Your task to perform on an android device: turn vacation reply on in the gmail app Image 0: 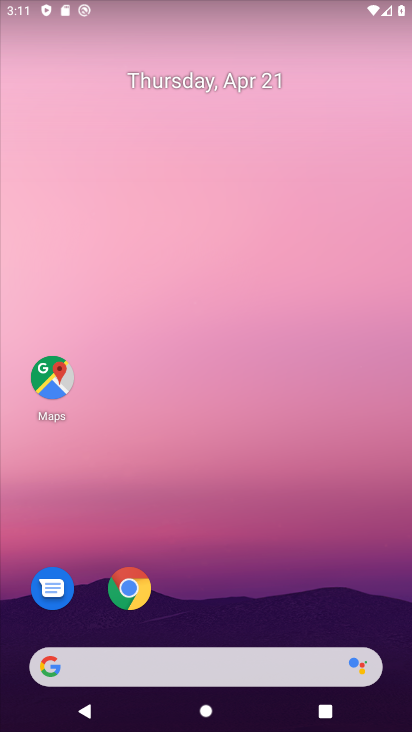
Step 0: drag from (156, 2) to (9, 220)
Your task to perform on an android device: turn vacation reply on in the gmail app Image 1: 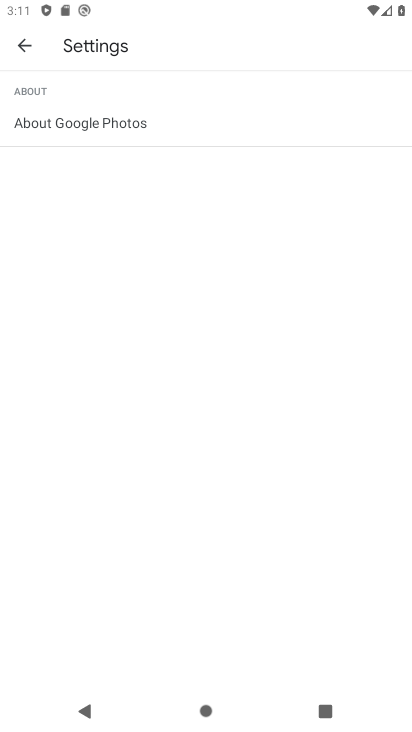
Step 1: press home button
Your task to perform on an android device: turn vacation reply on in the gmail app Image 2: 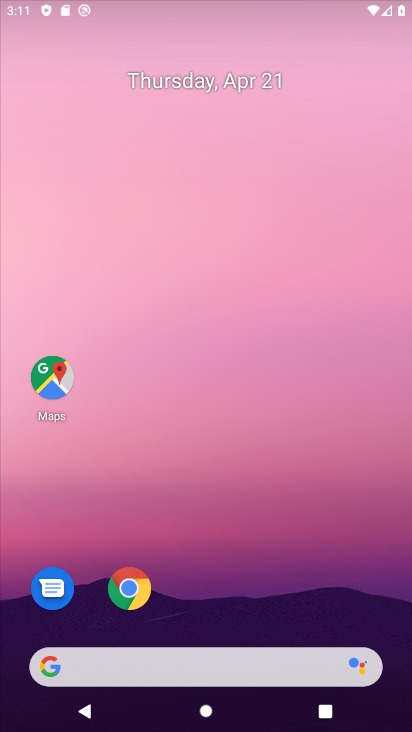
Step 2: drag from (183, 653) to (198, 0)
Your task to perform on an android device: turn vacation reply on in the gmail app Image 3: 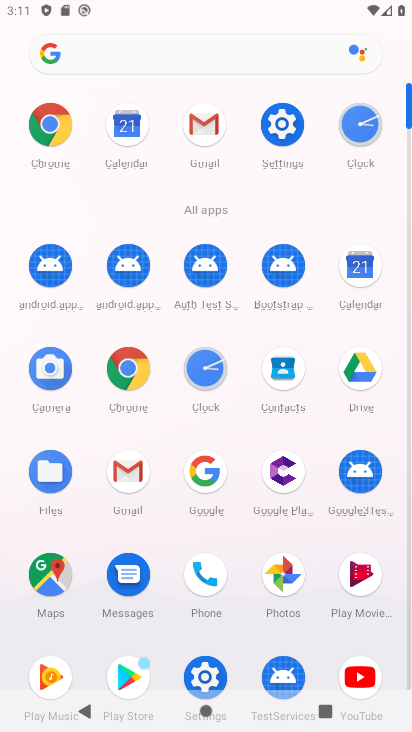
Step 3: click (118, 474)
Your task to perform on an android device: turn vacation reply on in the gmail app Image 4: 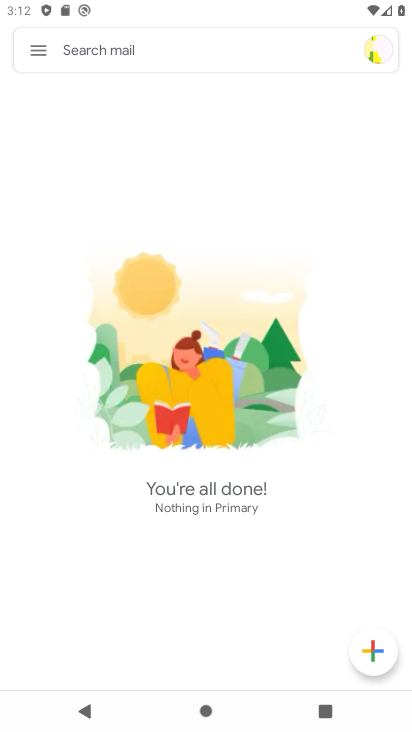
Step 4: click (37, 41)
Your task to perform on an android device: turn vacation reply on in the gmail app Image 5: 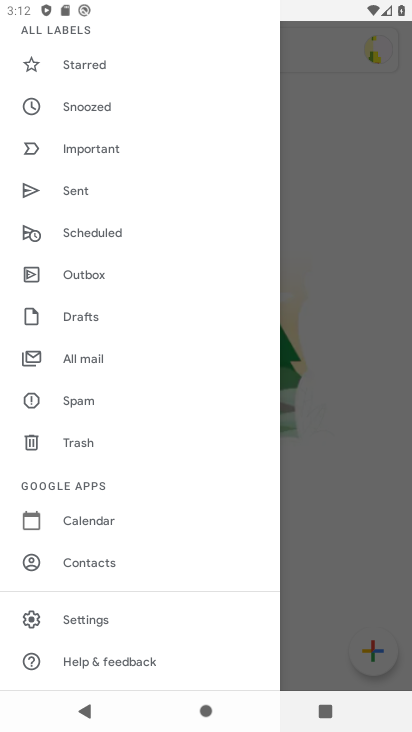
Step 5: click (117, 619)
Your task to perform on an android device: turn vacation reply on in the gmail app Image 6: 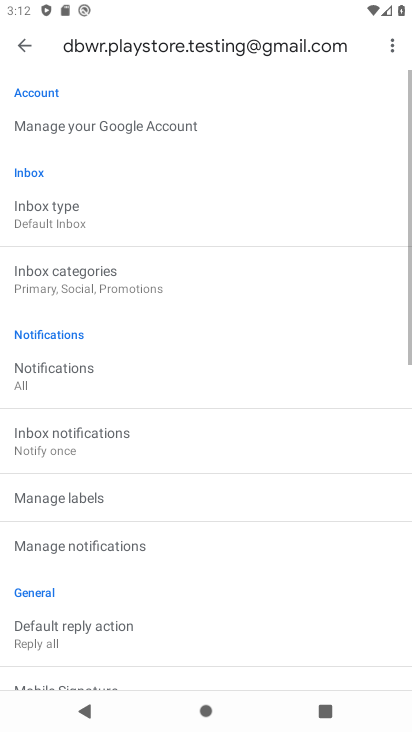
Step 6: drag from (115, 615) to (108, 17)
Your task to perform on an android device: turn vacation reply on in the gmail app Image 7: 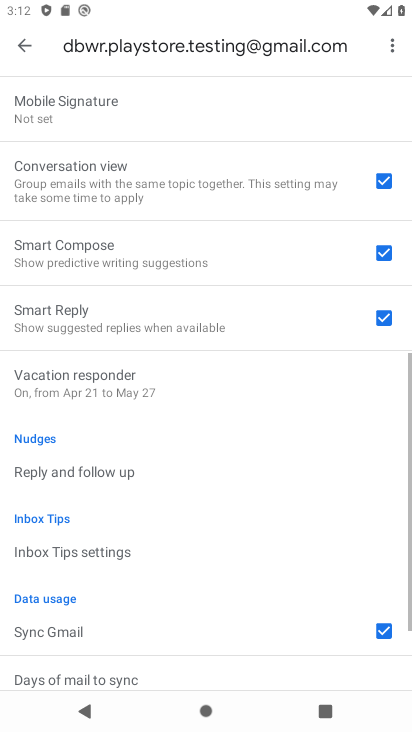
Step 7: click (94, 367)
Your task to perform on an android device: turn vacation reply on in the gmail app Image 8: 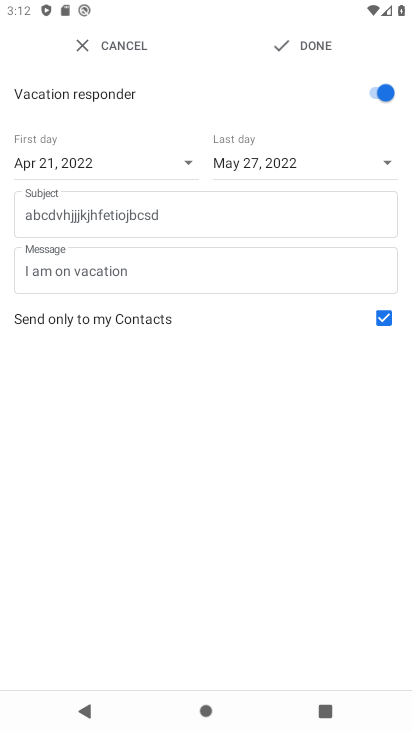
Step 8: click (294, 52)
Your task to perform on an android device: turn vacation reply on in the gmail app Image 9: 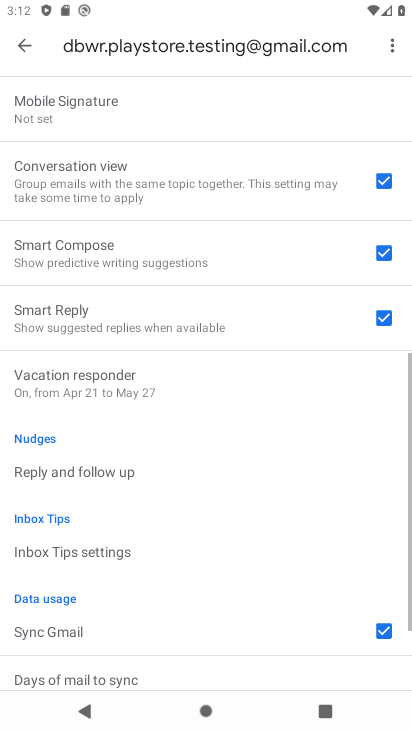
Step 9: task complete